Your task to perform on an android device: Go to calendar. Show me events next week Image 0: 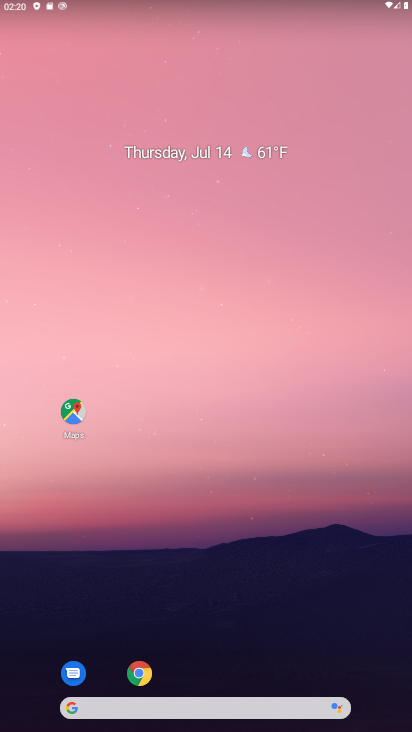
Step 0: drag from (264, 677) to (263, 162)
Your task to perform on an android device: Go to calendar. Show me events next week Image 1: 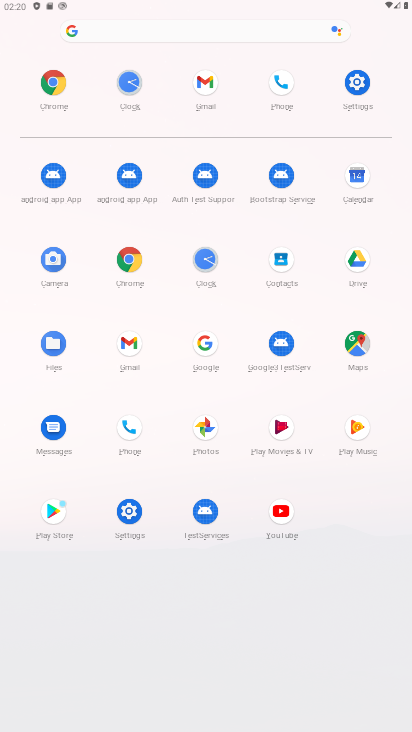
Step 1: click (351, 175)
Your task to perform on an android device: Go to calendar. Show me events next week Image 2: 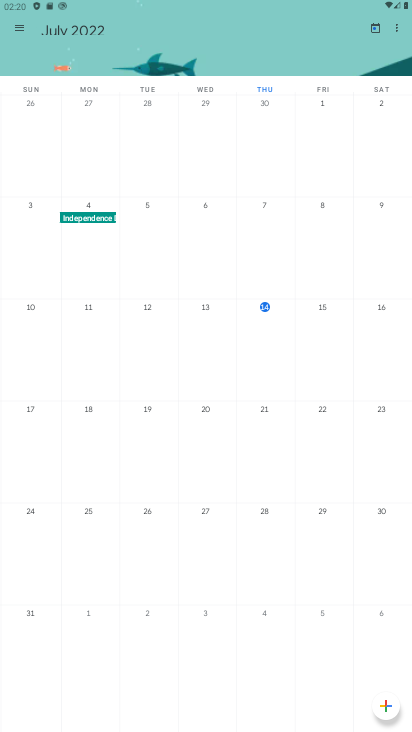
Step 2: task complete